Your task to perform on an android device: open sync settings in chrome Image 0: 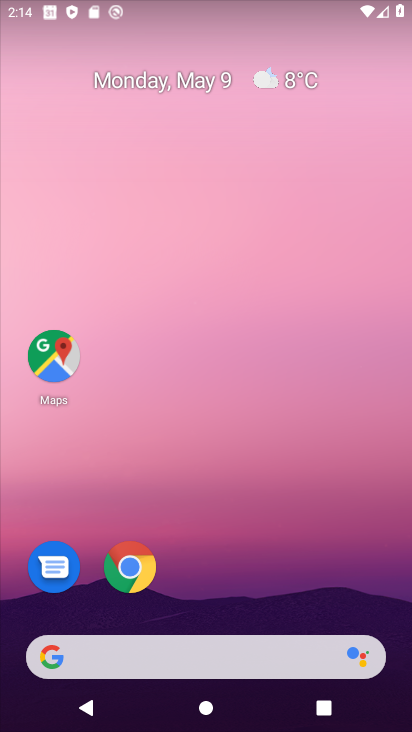
Step 0: drag from (276, 472) to (271, 237)
Your task to perform on an android device: open sync settings in chrome Image 1: 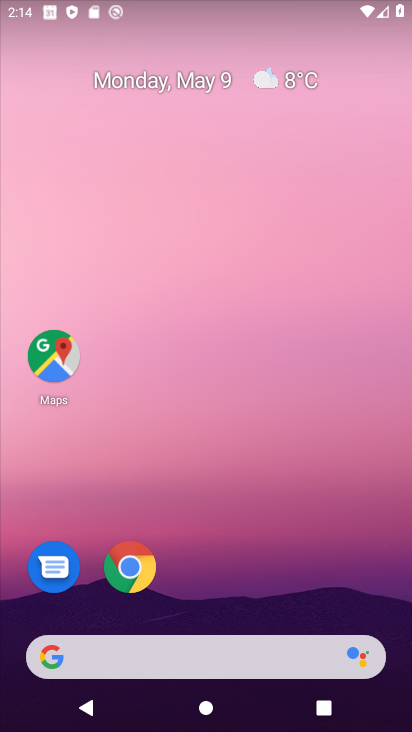
Step 1: drag from (231, 587) to (204, 199)
Your task to perform on an android device: open sync settings in chrome Image 2: 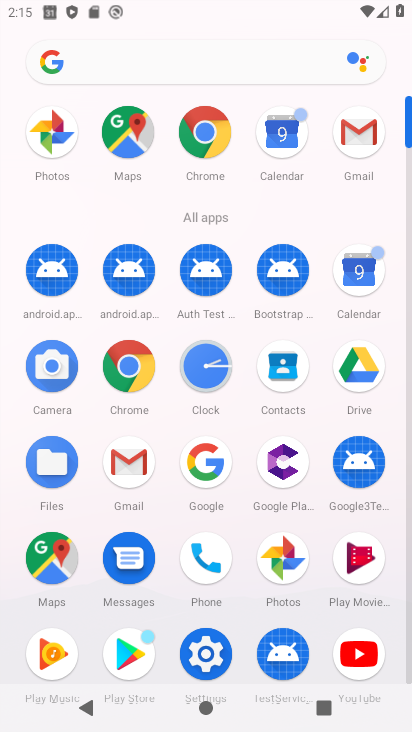
Step 2: click (207, 131)
Your task to perform on an android device: open sync settings in chrome Image 3: 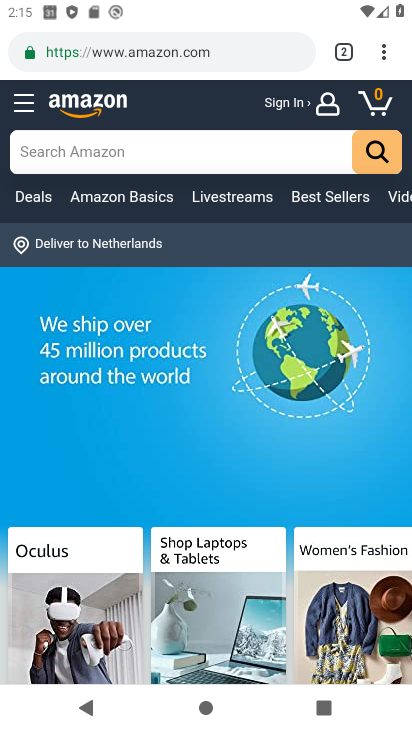
Step 3: click (370, 48)
Your task to perform on an android device: open sync settings in chrome Image 4: 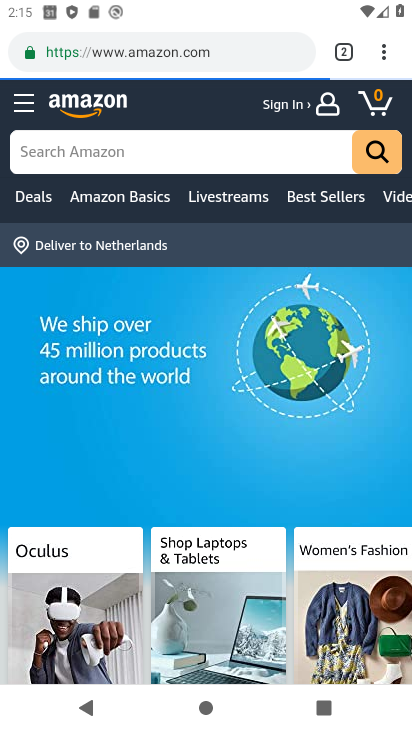
Step 4: click (368, 52)
Your task to perform on an android device: open sync settings in chrome Image 5: 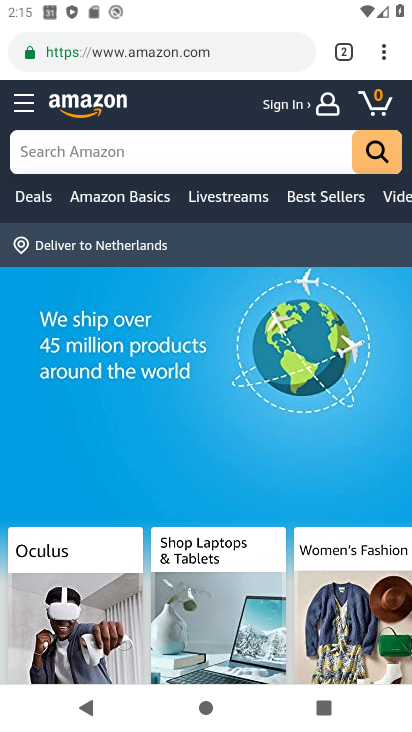
Step 5: click (370, 52)
Your task to perform on an android device: open sync settings in chrome Image 6: 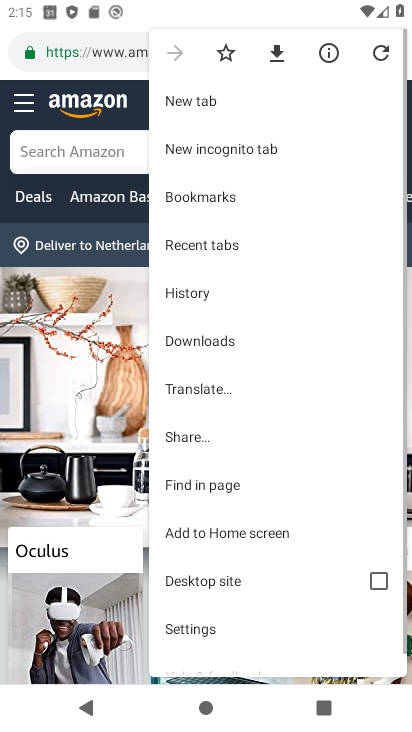
Step 6: drag from (221, 603) to (254, 215)
Your task to perform on an android device: open sync settings in chrome Image 7: 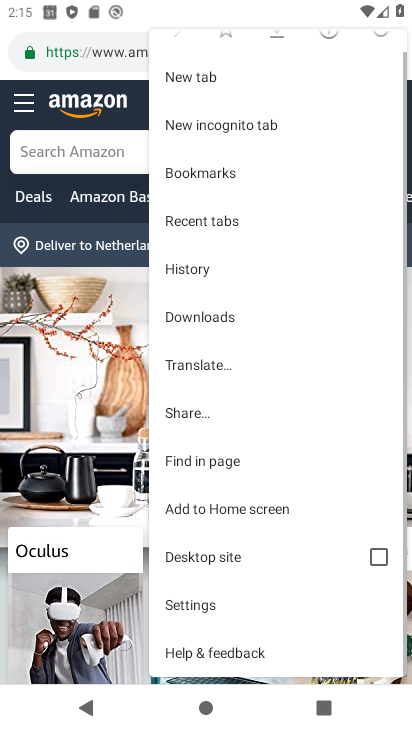
Step 7: click (222, 601)
Your task to perform on an android device: open sync settings in chrome Image 8: 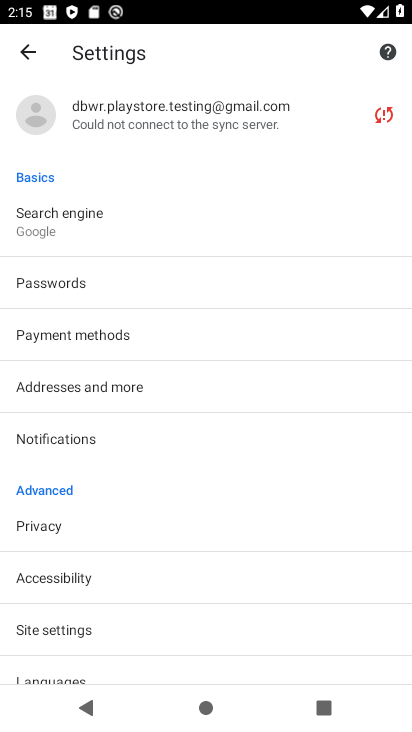
Step 8: click (63, 230)
Your task to perform on an android device: open sync settings in chrome Image 9: 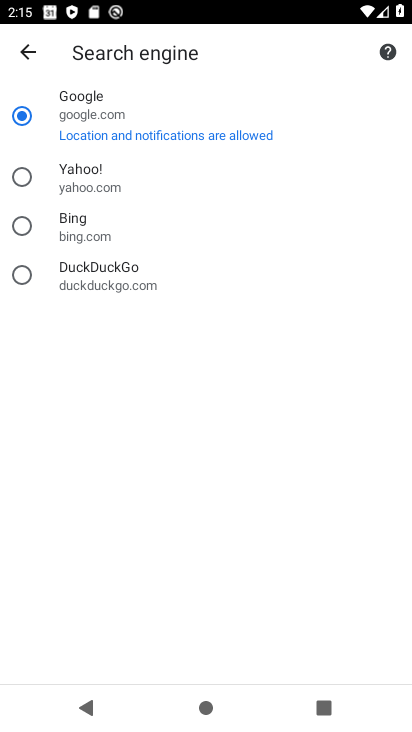
Step 9: click (93, 722)
Your task to perform on an android device: open sync settings in chrome Image 10: 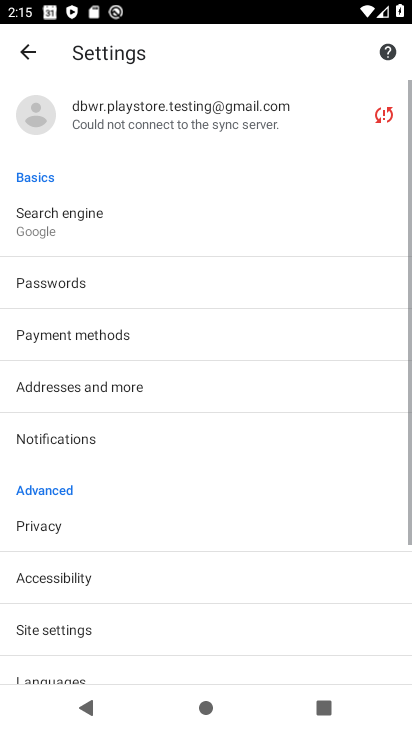
Step 10: click (118, 101)
Your task to perform on an android device: open sync settings in chrome Image 11: 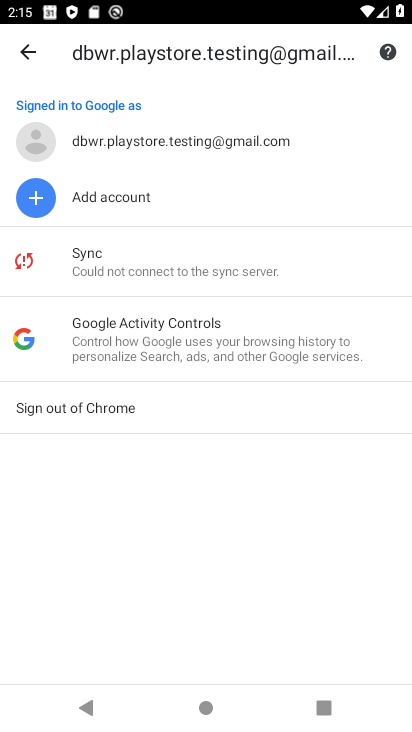
Step 11: click (126, 267)
Your task to perform on an android device: open sync settings in chrome Image 12: 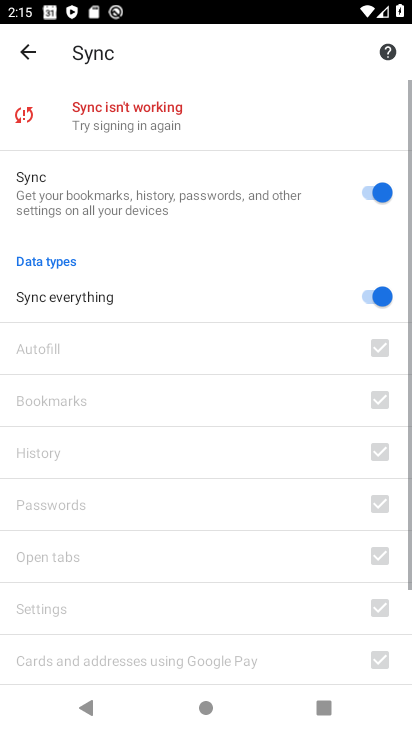
Step 12: task complete